Your task to perform on an android device: Do I have any events today? Image 0: 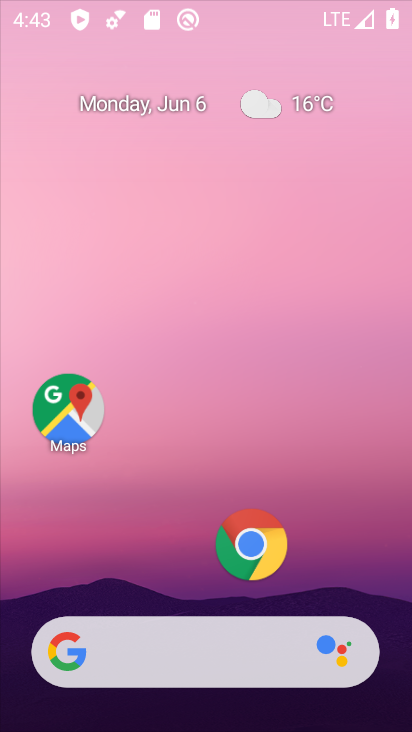
Step 0: press home button
Your task to perform on an android device: Do I have any events today? Image 1: 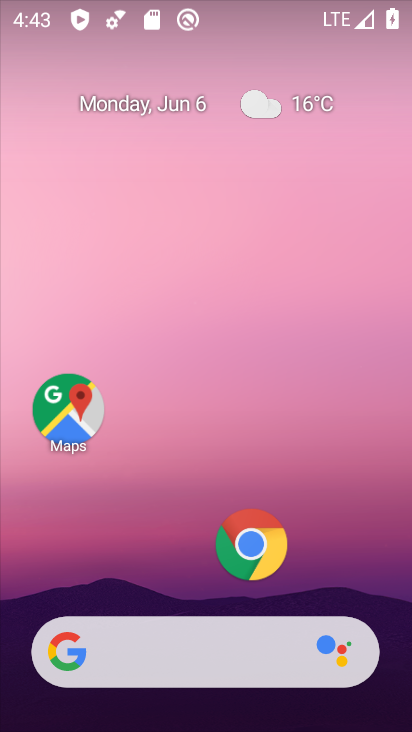
Step 1: drag from (11, 307) to (411, 344)
Your task to perform on an android device: Do I have any events today? Image 2: 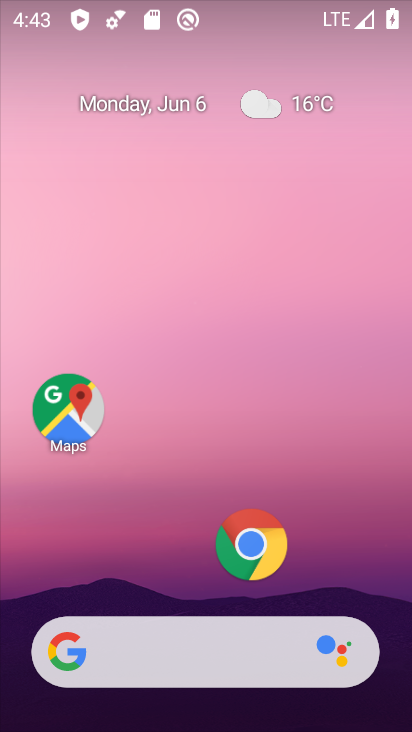
Step 2: drag from (12, 300) to (411, 311)
Your task to perform on an android device: Do I have any events today? Image 3: 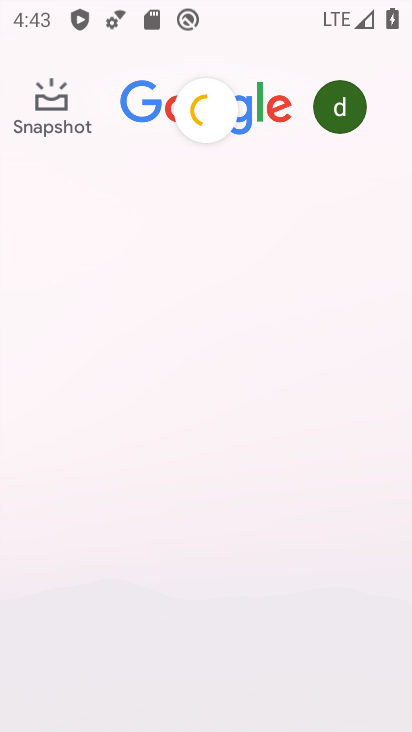
Step 3: press home button
Your task to perform on an android device: Do I have any events today? Image 4: 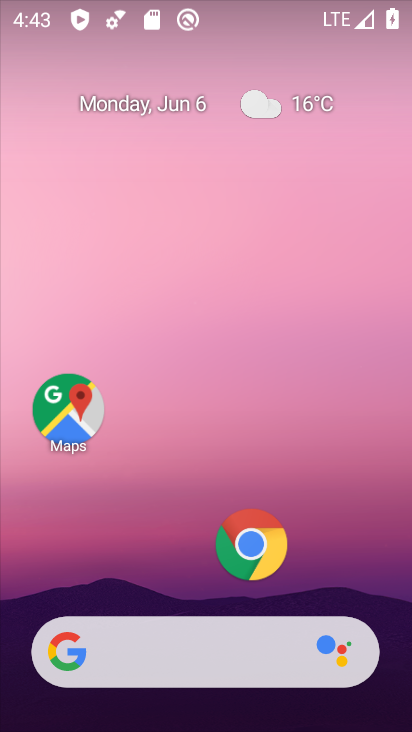
Step 4: drag from (191, 573) to (242, 107)
Your task to perform on an android device: Do I have any events today? Image 5: 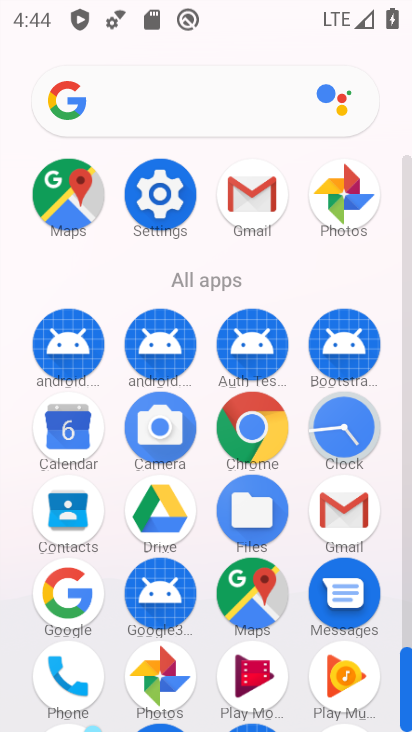
Step 5: click (62, 426)
Your task to perform on an android device: Do I have any events today? Image 6: 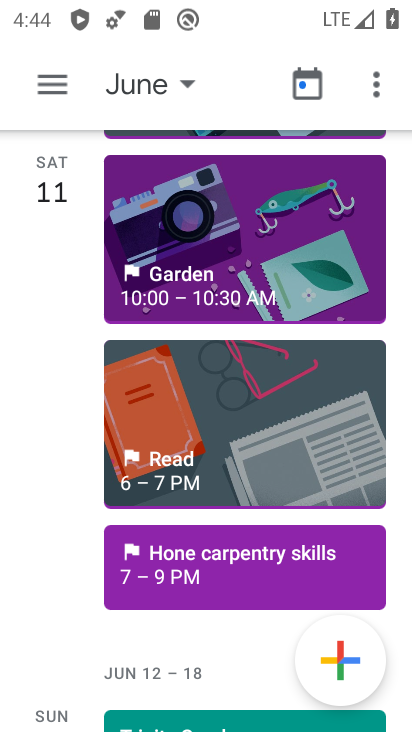
Step 6: click (52, 84)
Your task to perform on an android device: Do I have any events today? Image 7: 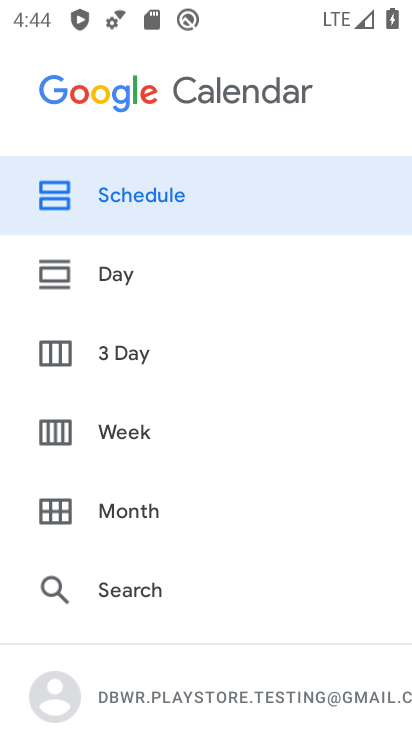
Step 7: click (84, 262)
Your task to perform on an android device: Do I have any events today? Image 8: 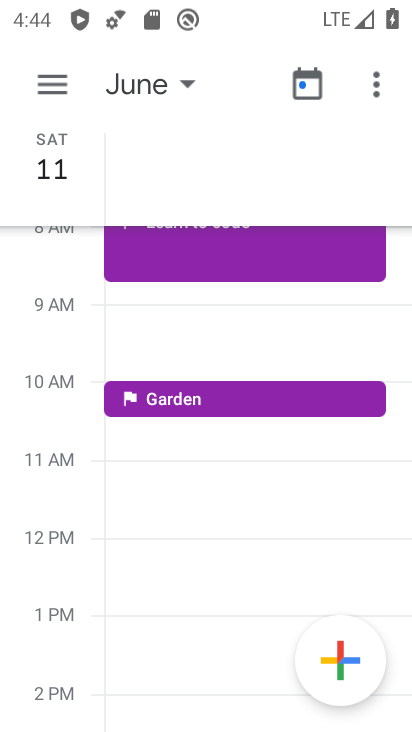
Step 8: click (176, 81)
Your task to perform on an android device: Do I have any events today? Image 9: 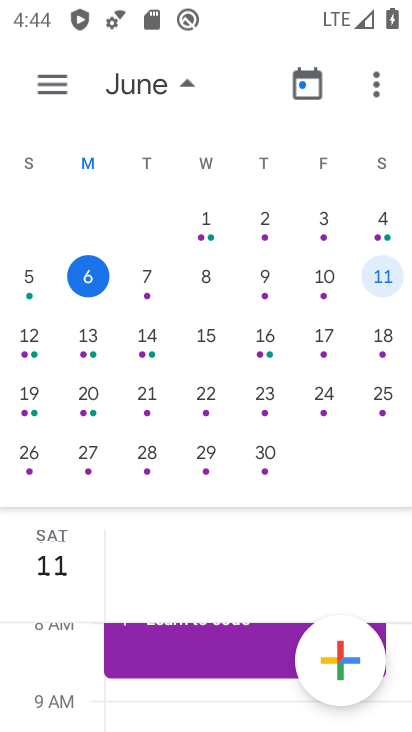
Step 9: click (90, 271)
Your task to perform on an android device: Do I have any events today? Image 10: 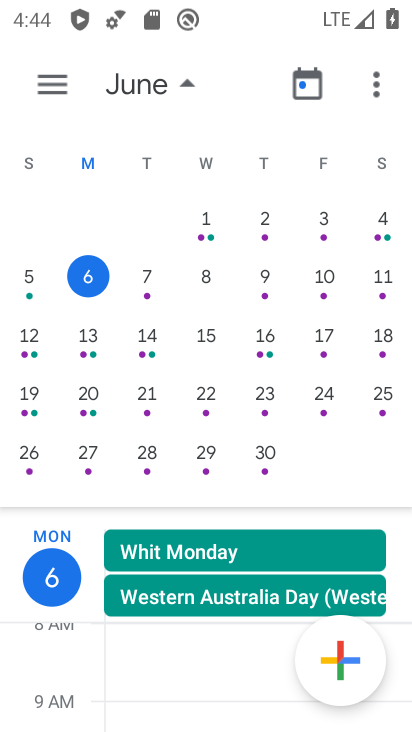
Step 10: click (175, 78)
Your task to perform on an android device: Do I have any events today? Image 11: 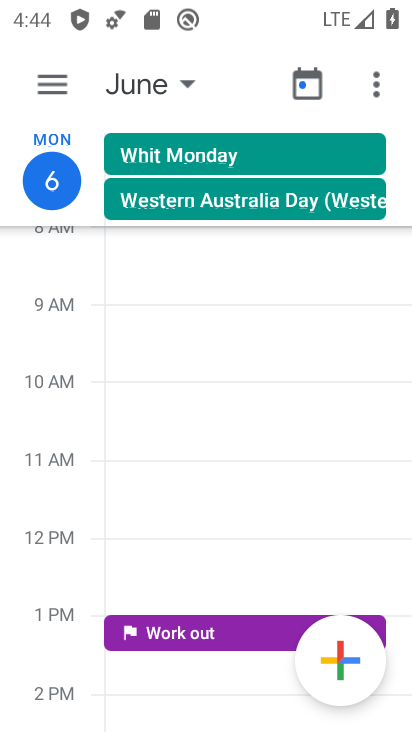
Step 11: task complete